Your task to perform on an android device: check battery use Image 0: 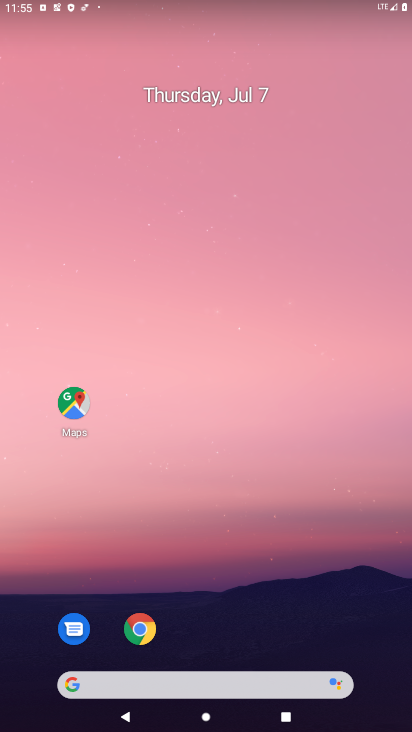
Step 0: drag from (379, 642) to (357, 83)
Your task to perform on an android device: check battery use Image 1: 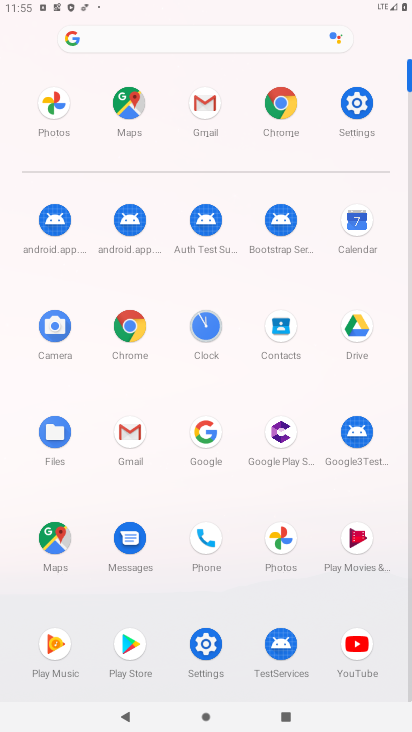
Step 1: click (209, 648)
Your task to perform on an android device: check battery use Image 2: 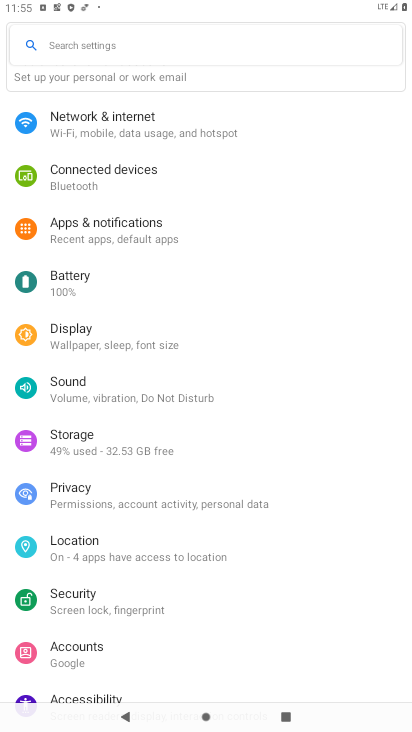
Step 2: click (73, 297)
Your task to perform on an android device: check battery use Image 3: 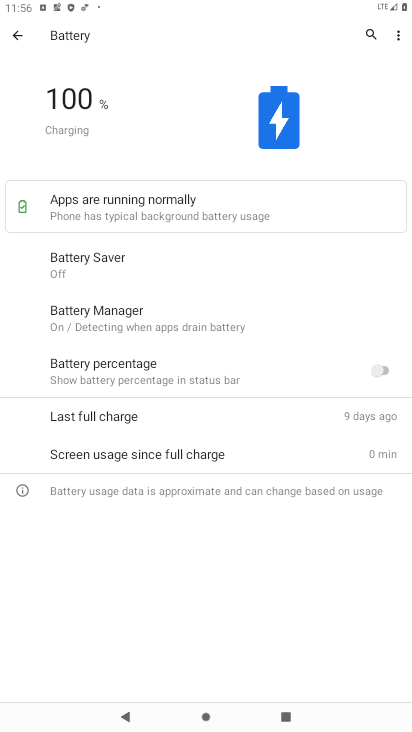
Step 3: click (396, 36)
Your task to perform on an android device: check battery use Image 4: 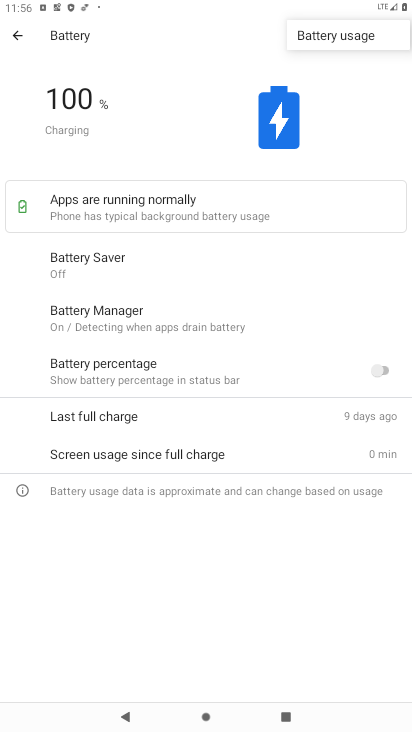
Step 4: click (325, 35)
Your task to perform on an android device: check battery use Image 5: 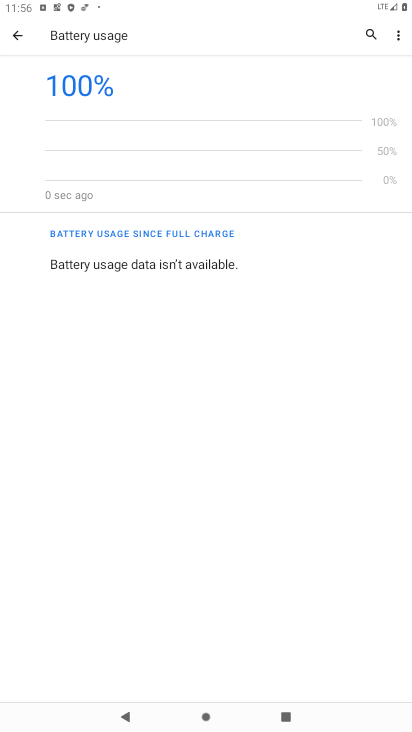
Step 5: task complete